Your task to perform on an android device: Search for Mexican restaurants on Maps Image 0: 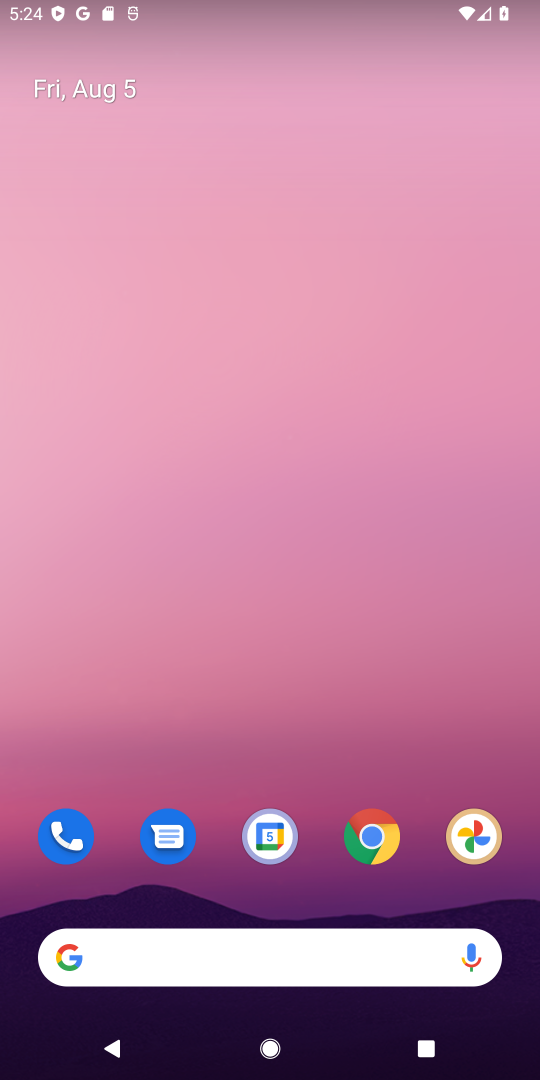
Step 0: press home button
Your task to perform on an android device: Search for Mexican restaurants on Maps Image 1: 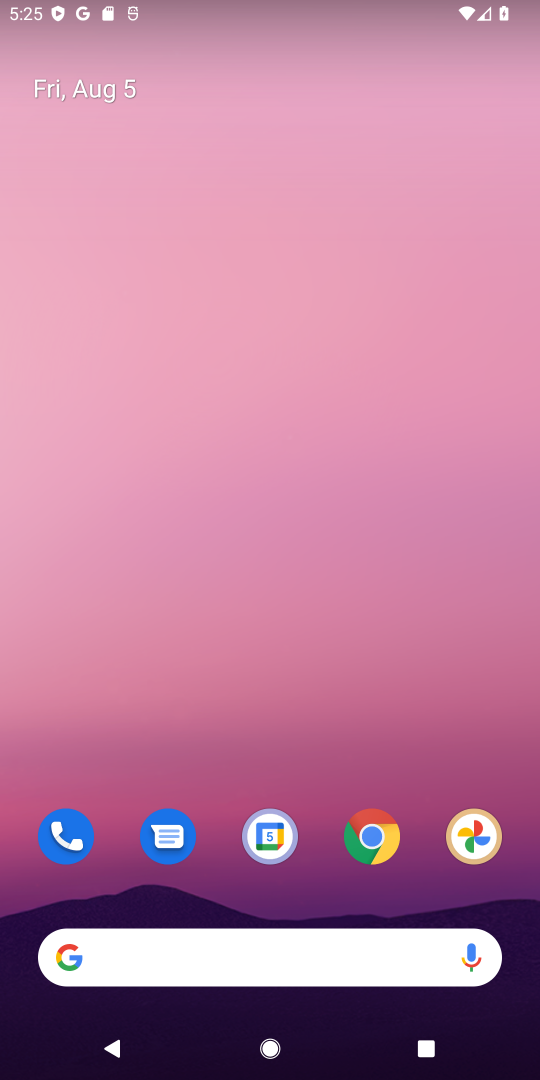
Step 1: drag from (320, 882) to (352, 93)
Your task to perform on an android device: Search for Mexican restaurants on Maps Image 2: 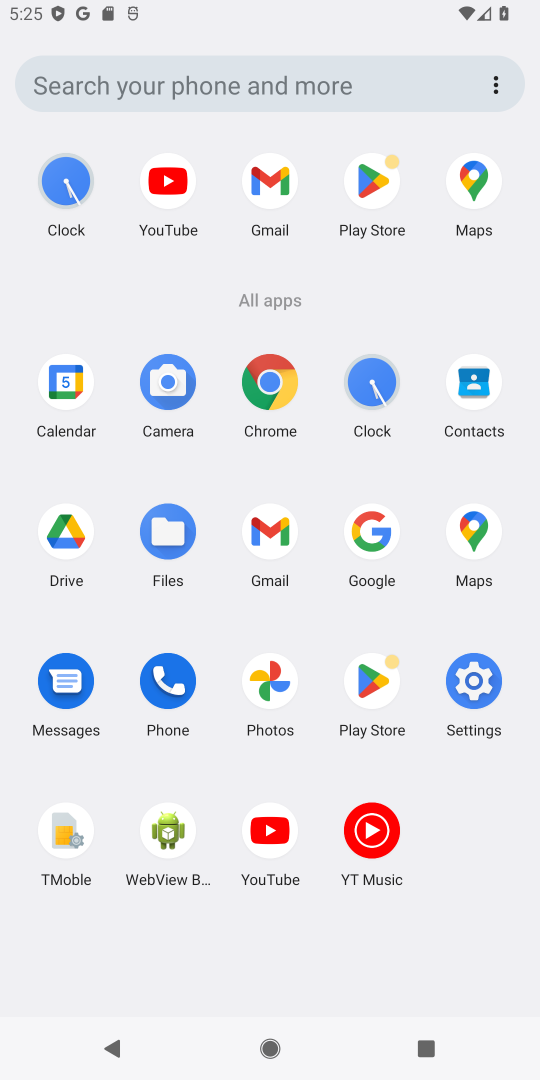
Step 2: click (473, 167)
Your task to perform on an android device: Search for Mexican restaurants on Maps Image 3: 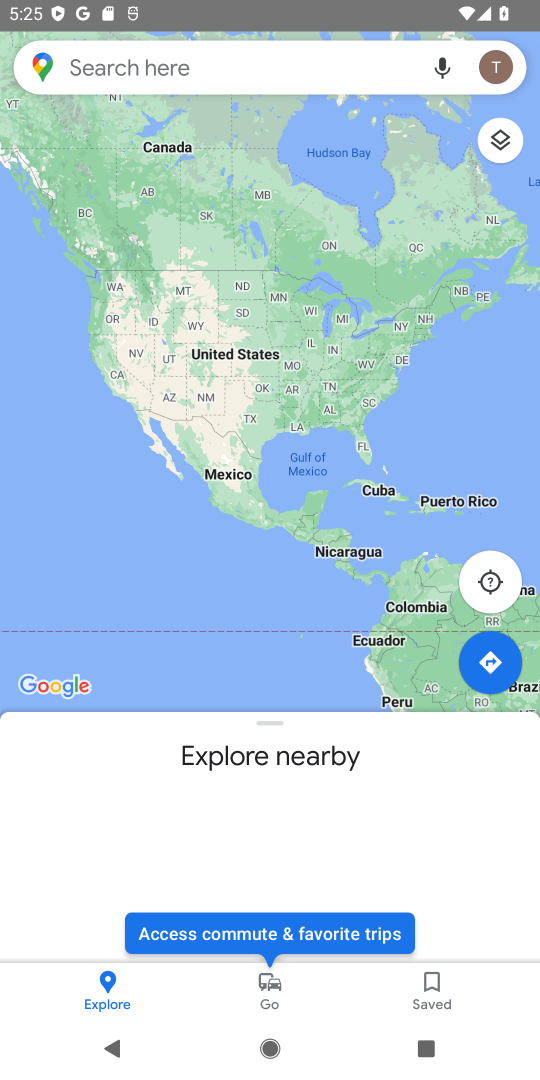
Step 3: click (120, 55)
Your task to perform on an android device: Search for Mexican restaurants on Maps Image 4: 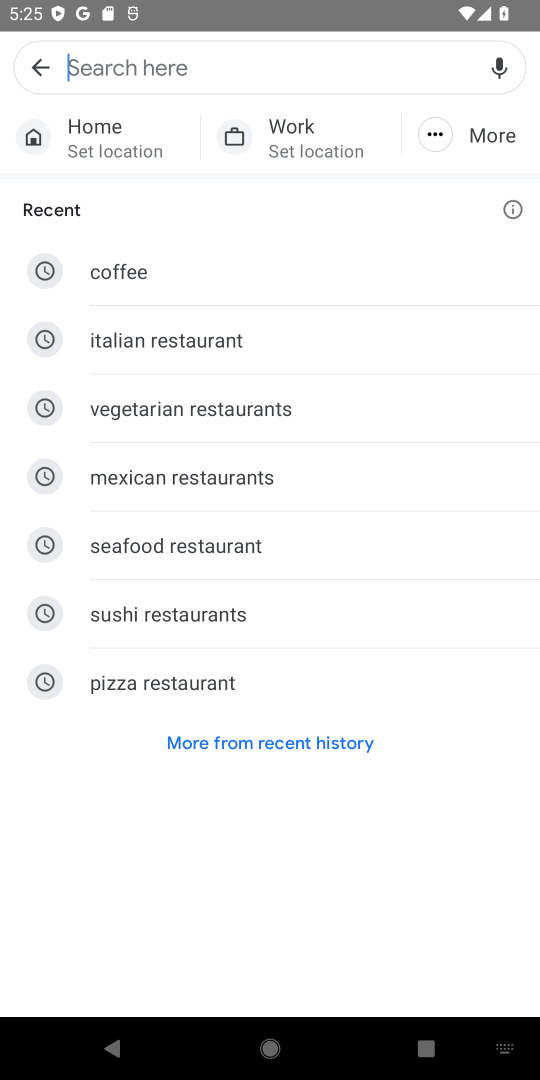
Step 4: click (182, 478)
Your task to perform on an android device: Search for Mexican restaurants on Maps Image 5: 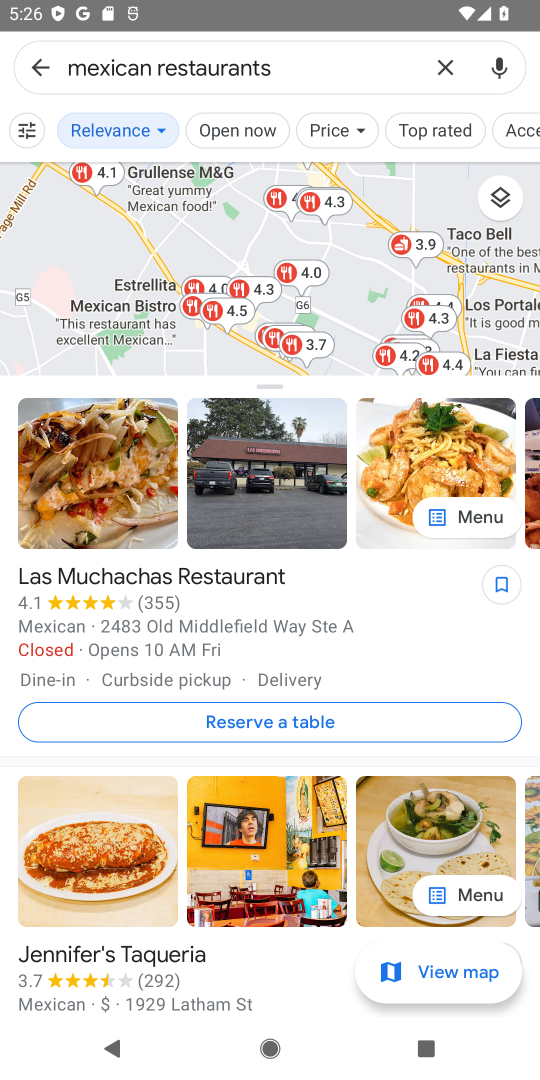
Step 5: task complete